Your task to perform on an android device: snooze an email in the gmail app Image 0: 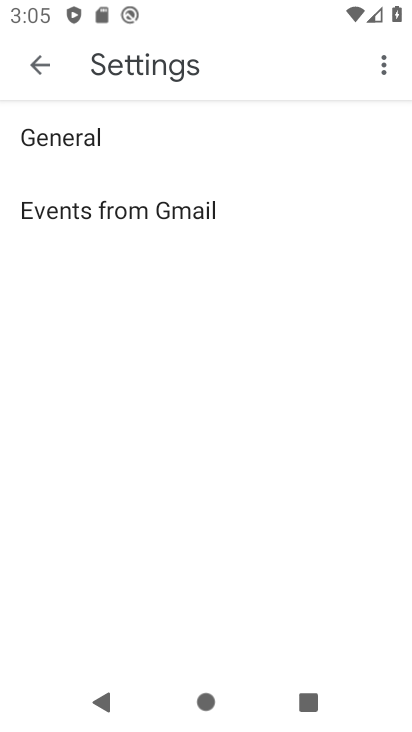
Step 0: press home button
Your task to perform on an android device: snooze an email in the gmail app Image 1: 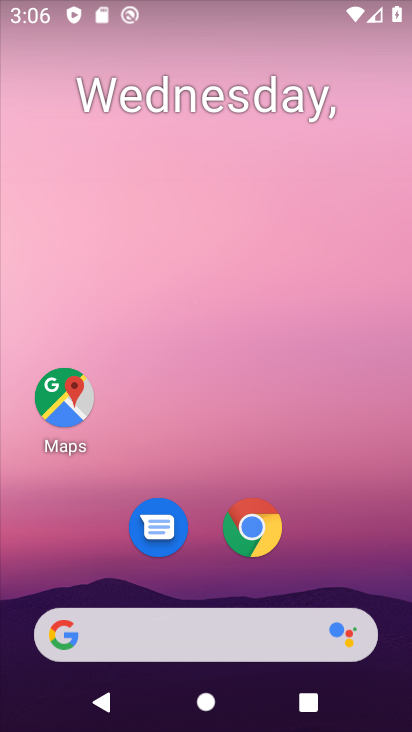
Step 1: drag from (344, 530) to (396, 82)
Your task to perform on an android device: snooze an email in the gmail app Image 2: 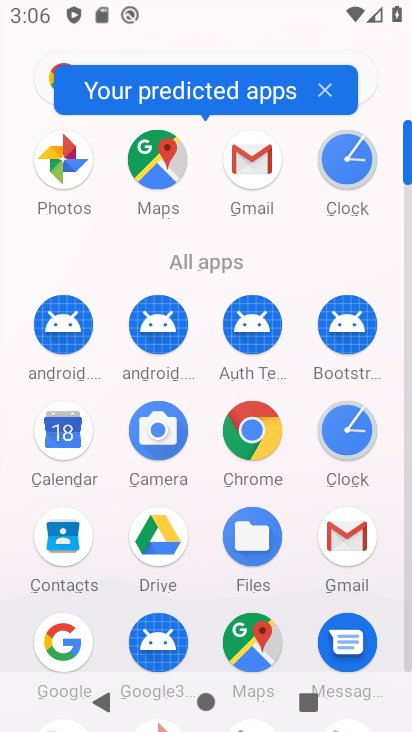
Step 2: click (252, 174)
Your task to perform on an android device: snooze an email in the gmail app Image 3: 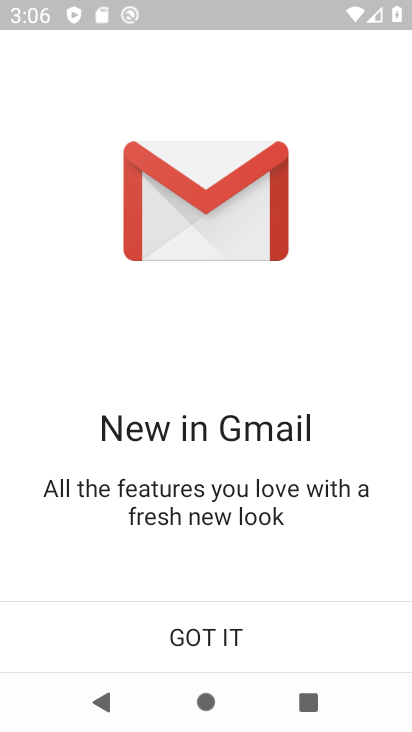
Step 3: click (213, 627)
Your task to perform on an android device: snooze an email in the gmail app Image 4: 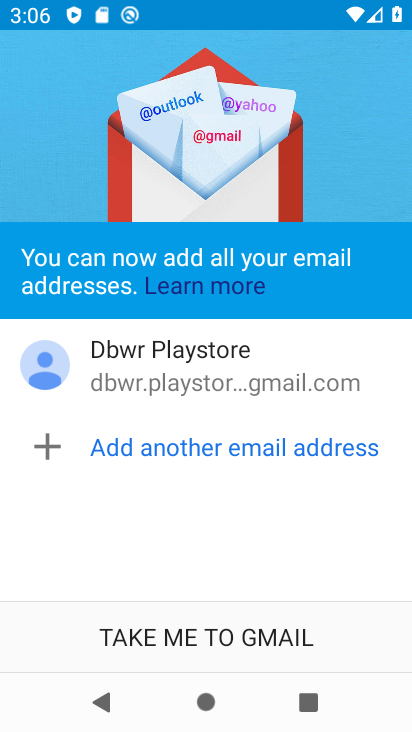
Step 4: click (223, 637)
Your task to perform on an android device: snooze an email in the gmail app Image 5: 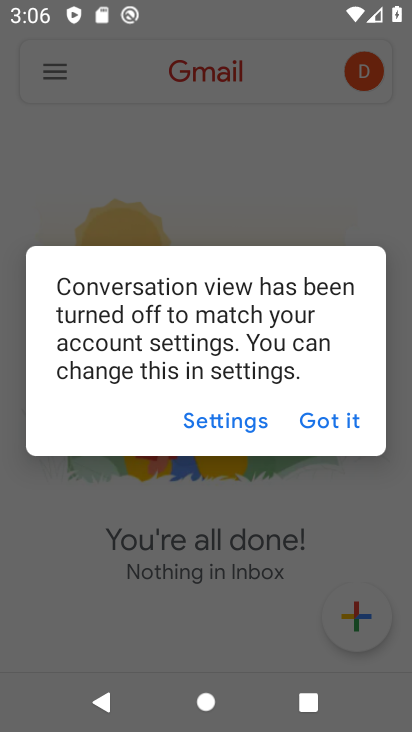
Step 5: click (331, 423)
Your task to perform on an android device: snooze an email in the gmail app Image 6: 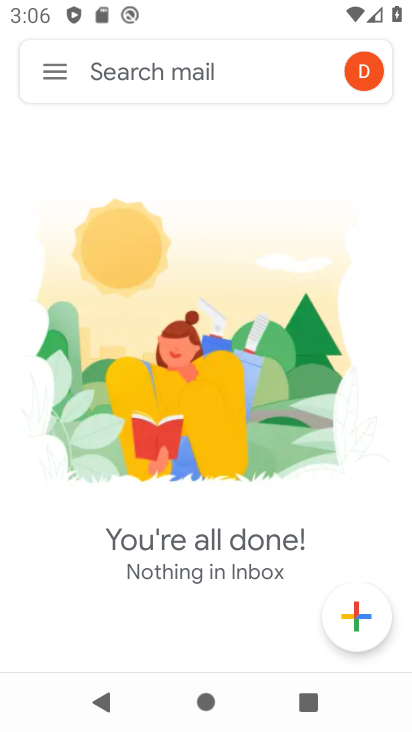
Step 6: task complete